Your task to perform on an android device: turn on showing notifications on the lock screen Image 0: 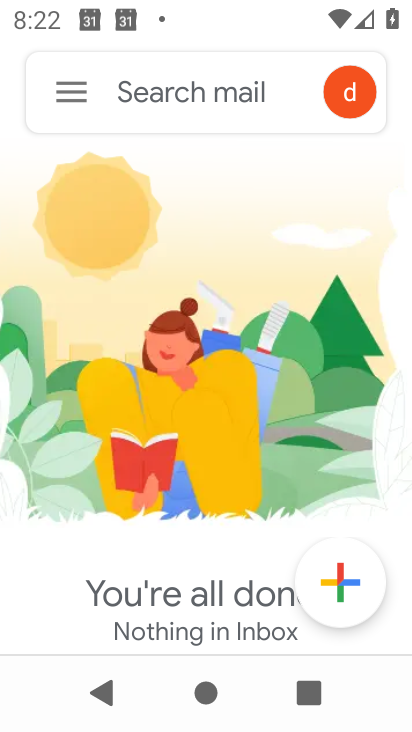
Step 0: click (79, 85)
Your task to perform on an android device: turn on showing notifications on the lock screen Image 1: 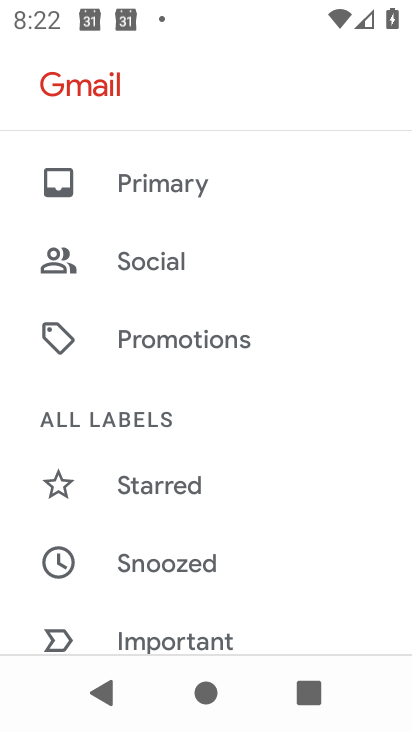
Step 1: press home button
Your task to perform on an android device: turn on showing notifications on the lock screen Image 2: 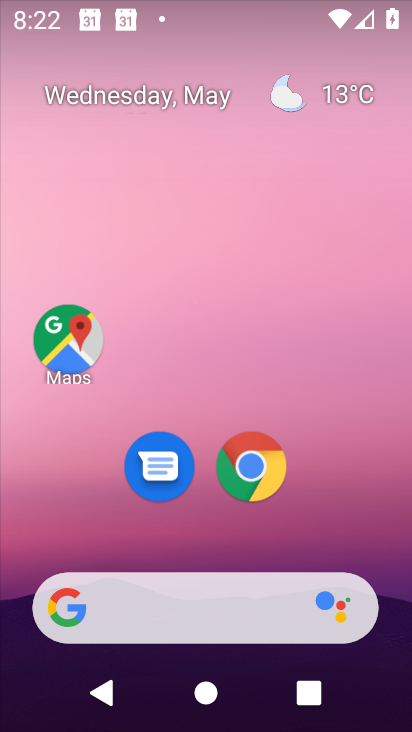
Step 2: drag from (201, 545) to (214, 68)
Your task to perform on an android device: turn on showing notifications on the lock screen Image 3: 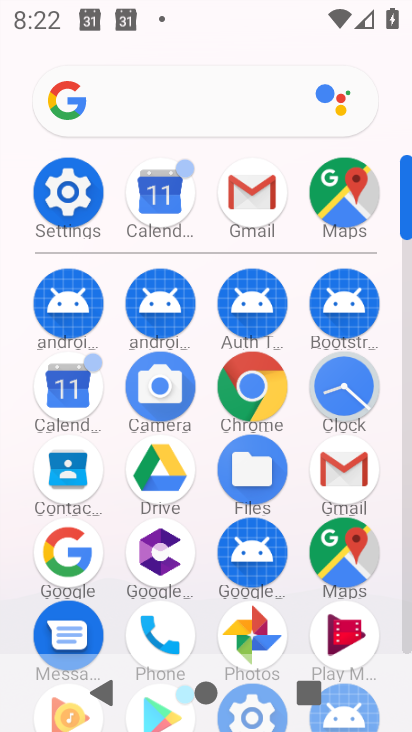
Step 3: click (65, 190)
Your task to perform on an android device: turn on showing notifications on the lock screen Image 4: 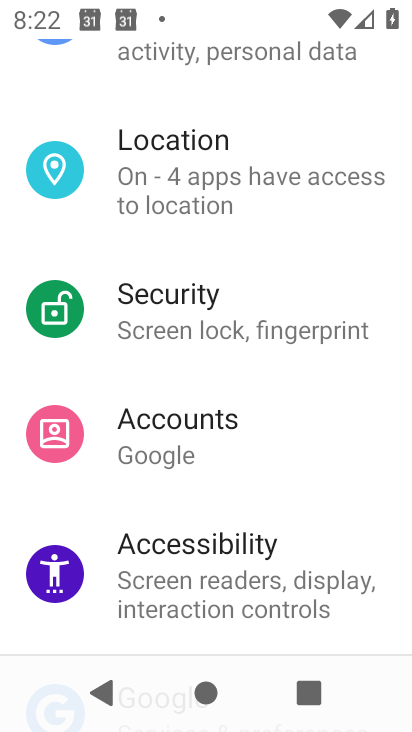
Step 4: drag from (219, 126) to (182, 701)
Your task to perform on an android device: turn on showing notifications on the lock screen Image 5: 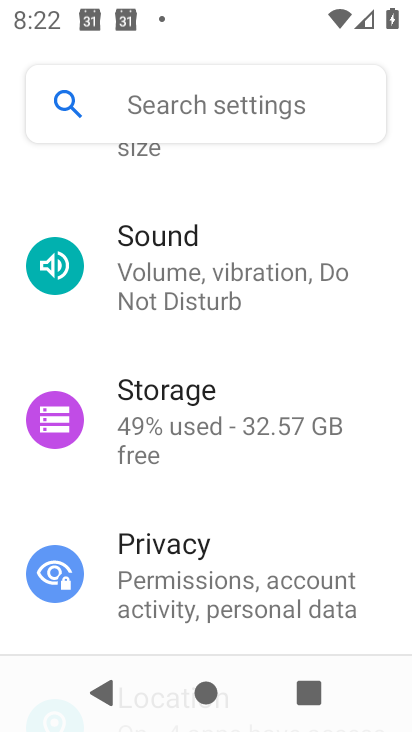
Step 5: drag from (197, 219) to (186, 683)
Your task to perform on an android device: turn on showing notifications on the lock screen Image 6: 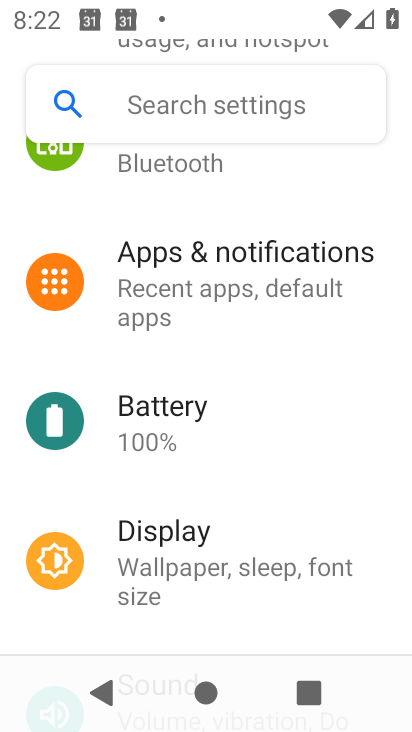
Step 6: click (214, 267)
Your task to perform on an android device: turn on showing notifications on the lock screen Image 7: 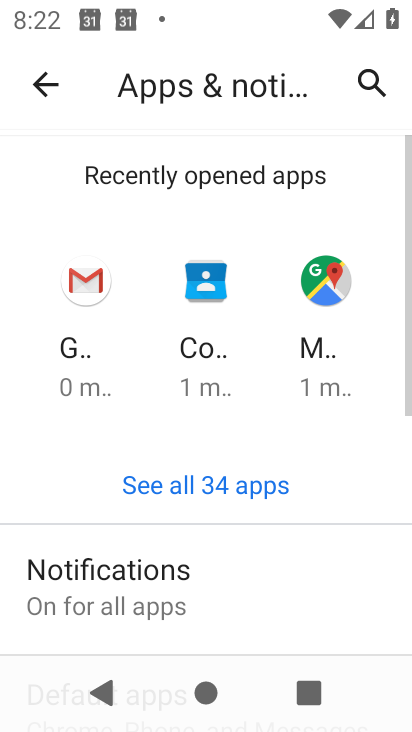
Step 7: click (201, 584)
Your task to perform on an android device: turn on showing notifications on the lock screen Image 8: 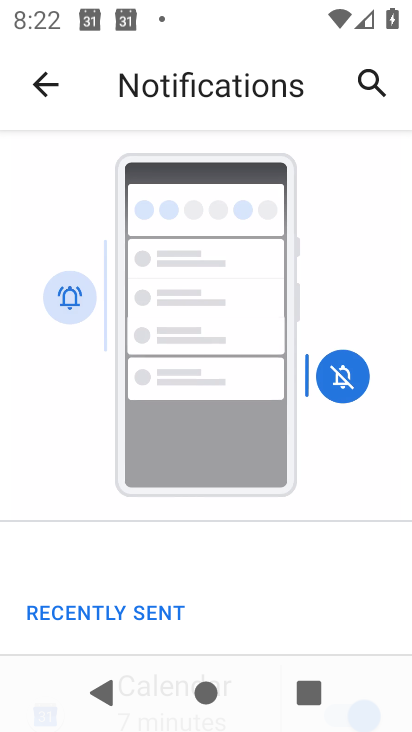
Step 8: drag from (214, 623) to (231, 120)
Your task to perform on an android device: turn on showing notifications on the lock screen Image 9: 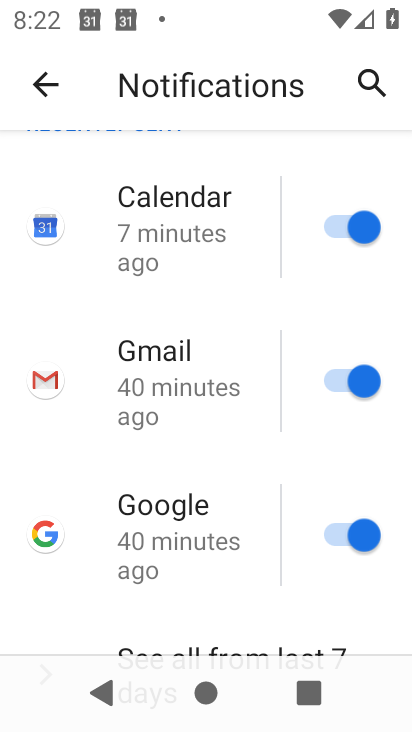
Step 9: drag from (213, 575) to (242, 134)
Your task to perform on an android device: turn on showing notifications on the lock screen Image 10: 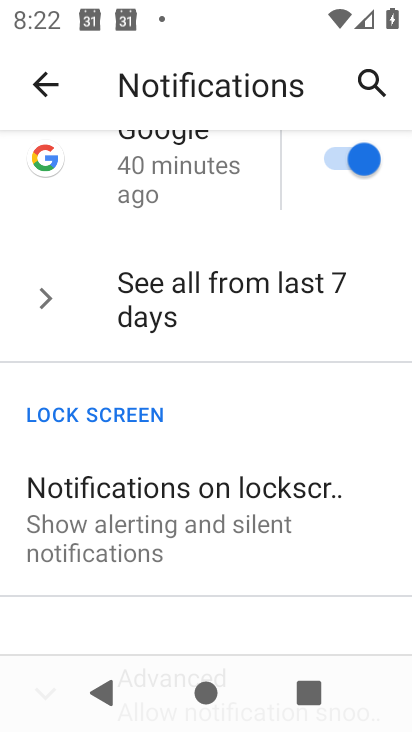
Step 10: click (197, 525)
Your task to perform on an android device: turn on showing notifications on the lock screen Image 11: 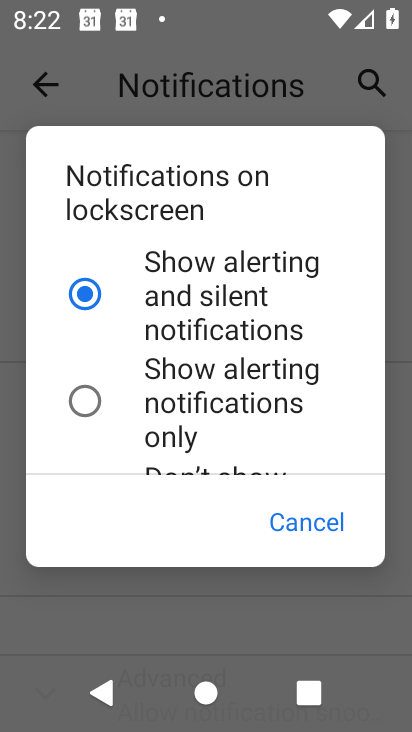
Step 11: click (93, 397)
Your task to perform on an android device: turn on showing notifications on the lock screen Image 12: 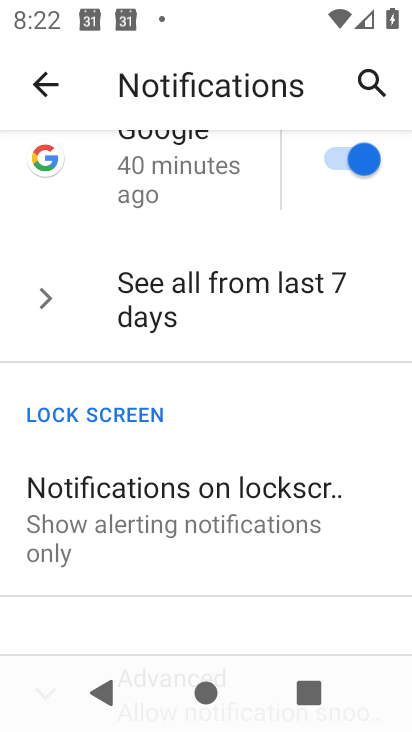
Step 12: task complete